Your task to perform on an android device: Check the news Image 0: 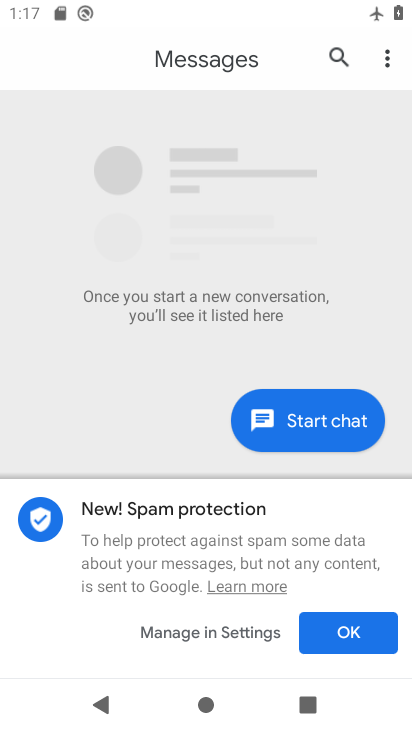
Step 0: press home button
Your task to perform on an android device: Check the news Image 1: 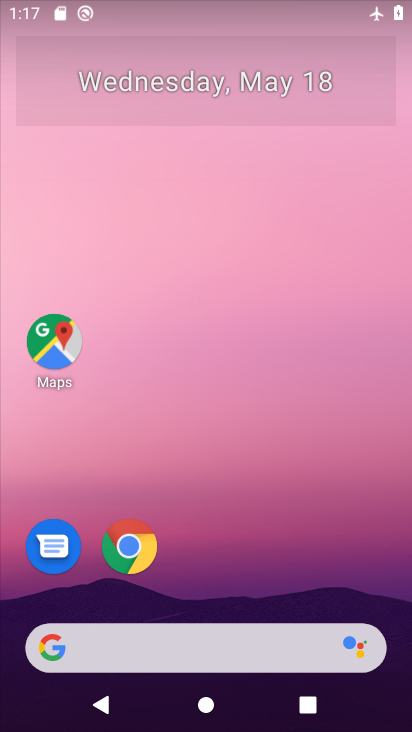
Step 1: click (128, 550)
Your task to perform on an android device: Check the news Image 2: 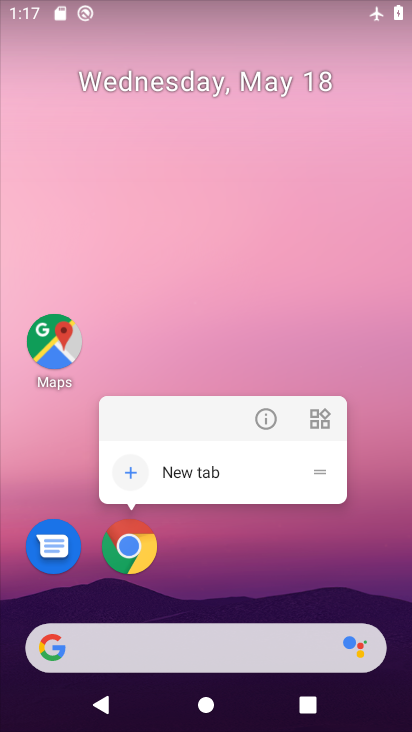
Step 2: click (134, 548)
Your task to perform on an android device: Check the news Image 3: 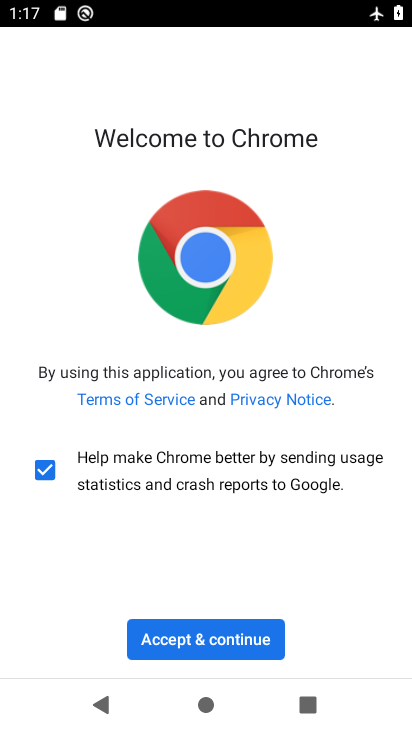
Step 3: click (246, 649)
Your task to perform on an android device: Check the news Image 4: 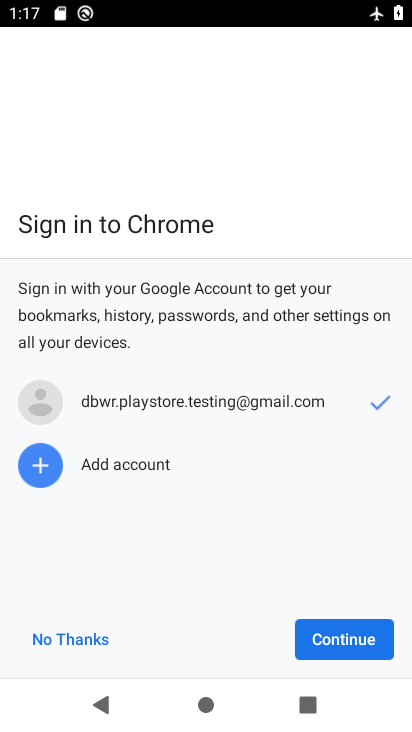
Step 4: click (331, 640)
Your task to perform on an android device: Check the news Image 5: 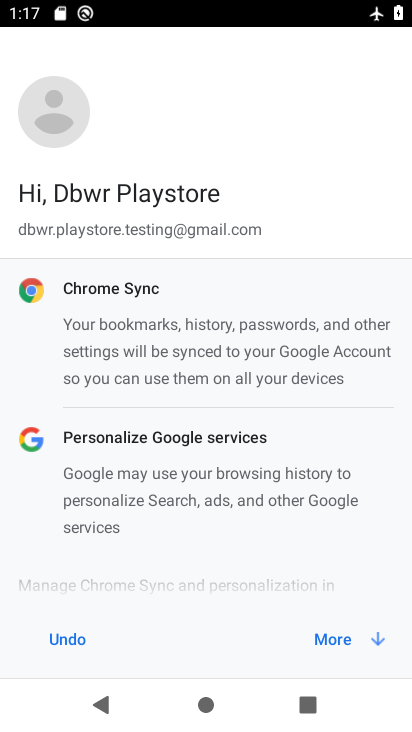
Step 5: click (341, 643)
Your task to perform on an android device: Check the news Image 6: 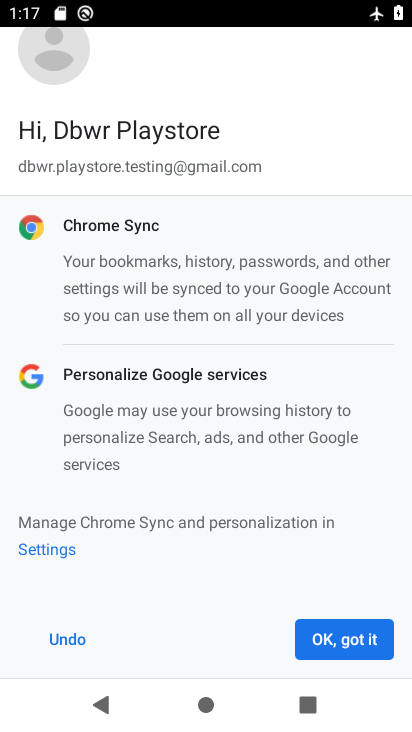
Step 6: click (363, 636)
Your task to perform on an android device: Check the news Image 7: 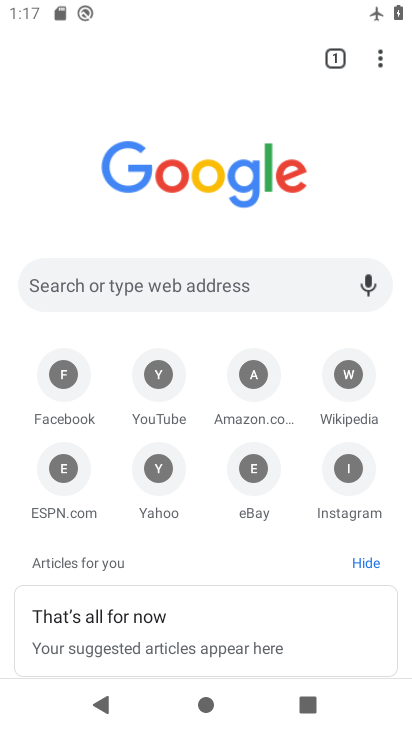
Step 7: click (125, 287)
Your task to perform on an android device: Check the news Image 8: 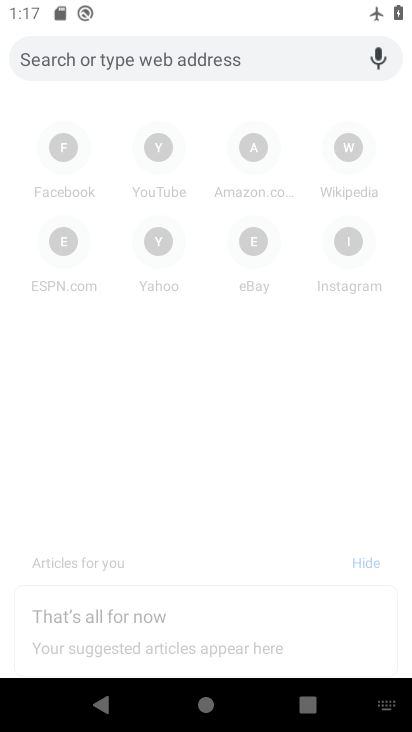
Step 8: type "new"
Your task to perform on an android device: Check the news Image 9: 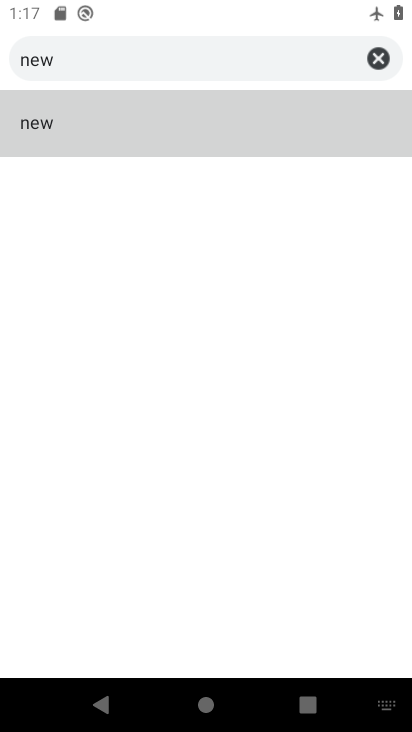
Step 9: type "s"
Your task to perform on an android device: Check the news Image 10: 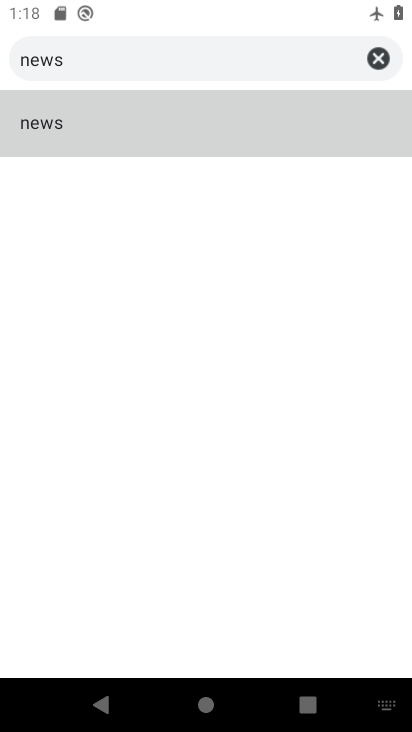
Step 10: click (79, 148)
Your task to perform on an android device: Check the news Image 11: 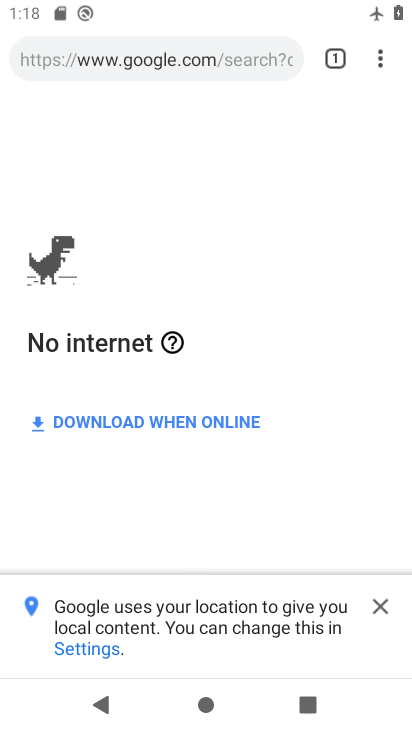
Step 11: task complete